Your task to perform on an android device: Go to notification settings Image 0: 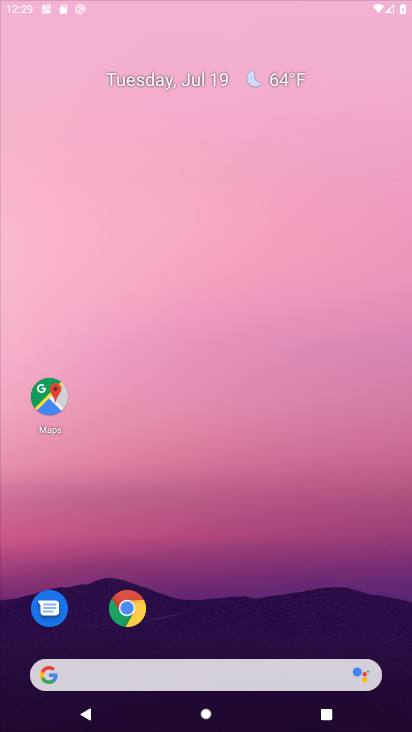
Step 0: drag from (238, 474) to (258, 98)
Your task to perform on an android device: Go to notification settings Image 1: 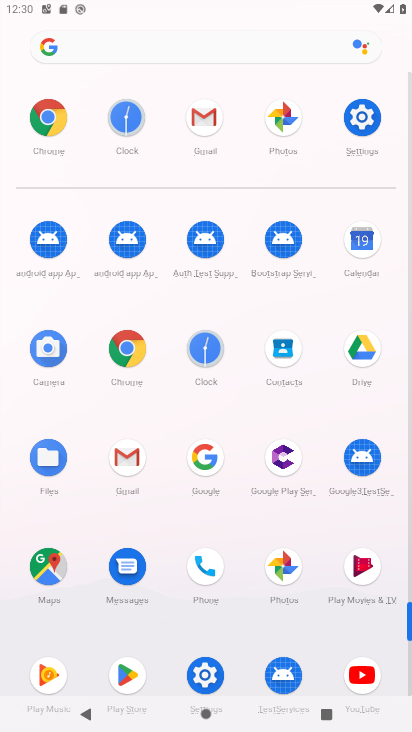
Step 1: click (202, 669)
Your task to perform on an android device: Go to notification settings Image 2: 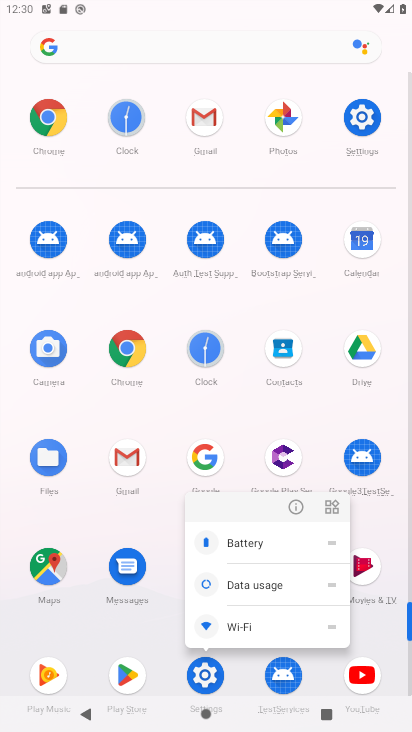
Step 2: click (203, 679)
Your task to perform on an android device: Go to notification settings Image 3: 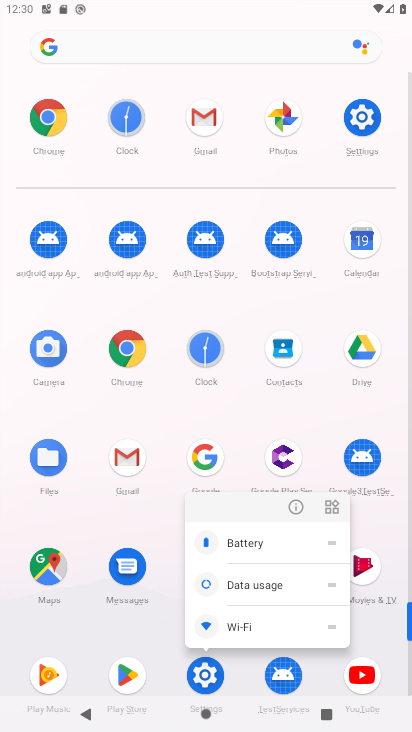
Step 3: click (206, 676)
Your task to perform on an android device: Go to notification settings Image 4: 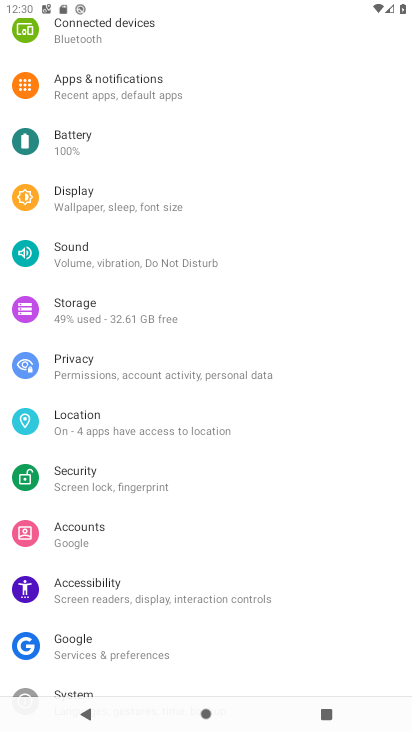
Step 4: drag from (170, 474) to (171, 729)
Your task to perform on an android device: Go to notification settings Image 5: 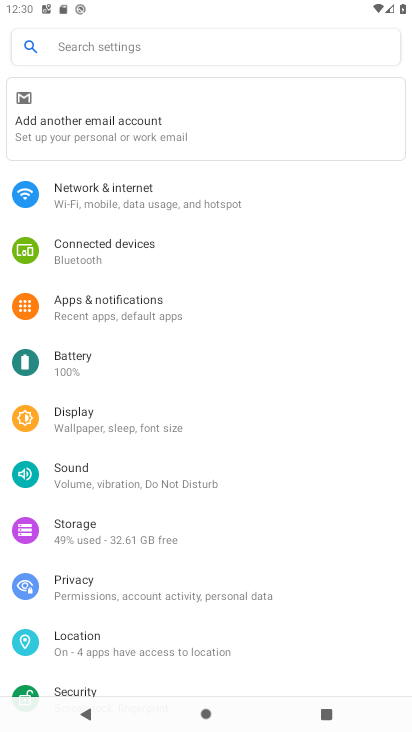
Step 5: click (163, 317)
Your task to perform on an android device: Go to notification settings Image 6: 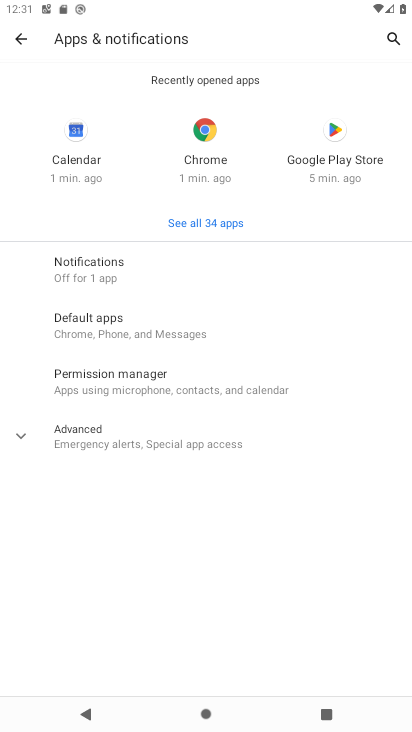
Step 6: click (174, 283)
Your task to perform on an android device: Go to notification settings Image 7: 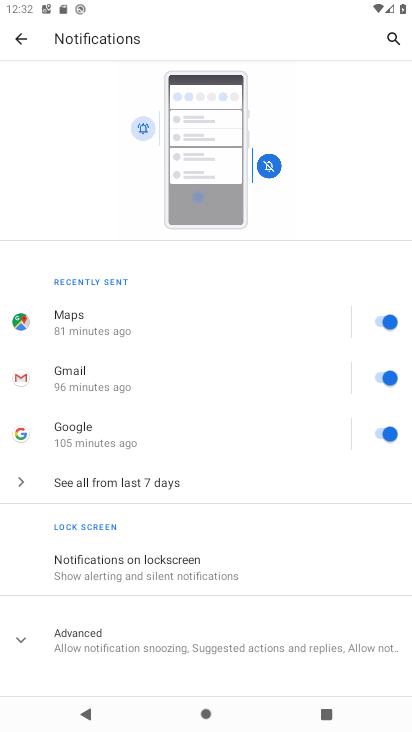
Step 7: task complete